Your task to perform on an android device: Open internet settings Image 0: 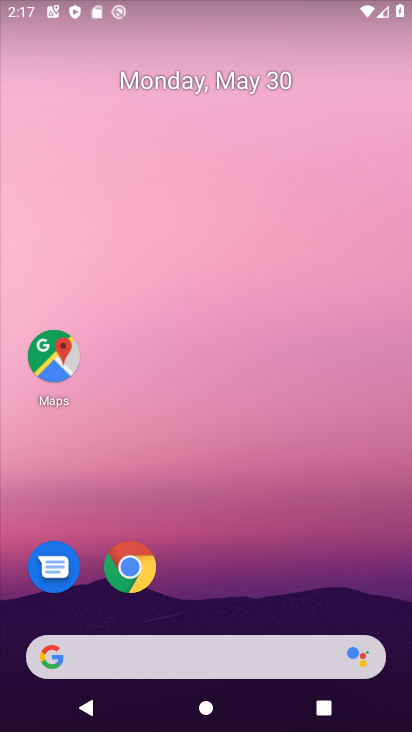
Step 0: drag from (208, 591) to (218, 151)
Your task to perform on an android device: Open internet settings Image 1: 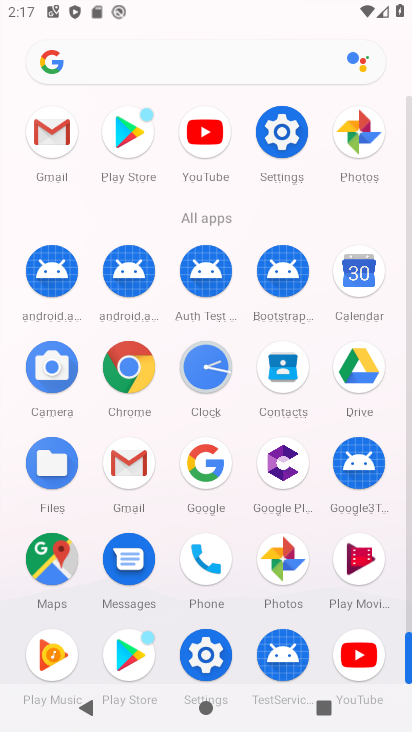
Step 1: click (288, 167)
Your task to perform on an android device: Open internet settings Image 2: 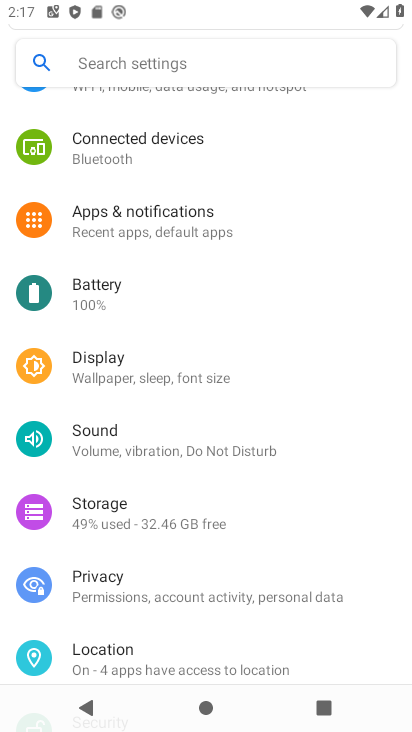
Step 2: drag from (202, 217) to (204, 574)
Your task to perform on an android device: Open internet settings Image 3: 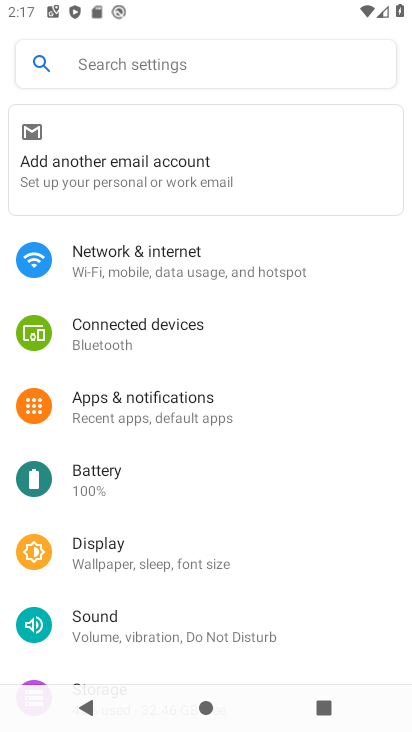
Step 3: click (164, 256)
Your task to perform on an android device: Open internet settings Image 4: 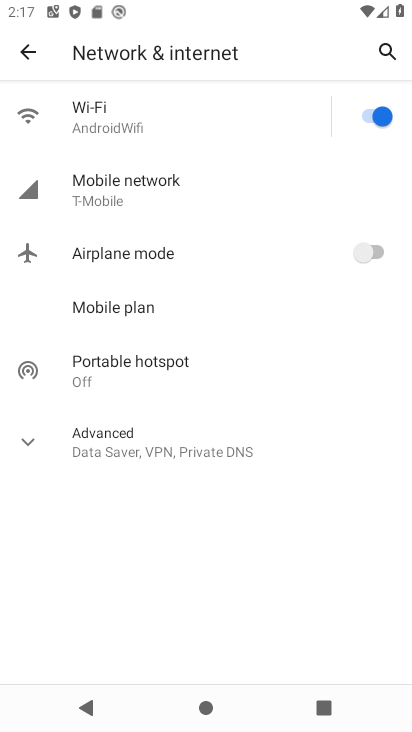
Step 4: task complete